Your task to perform on an android device: empty trash in google photos Image 0: 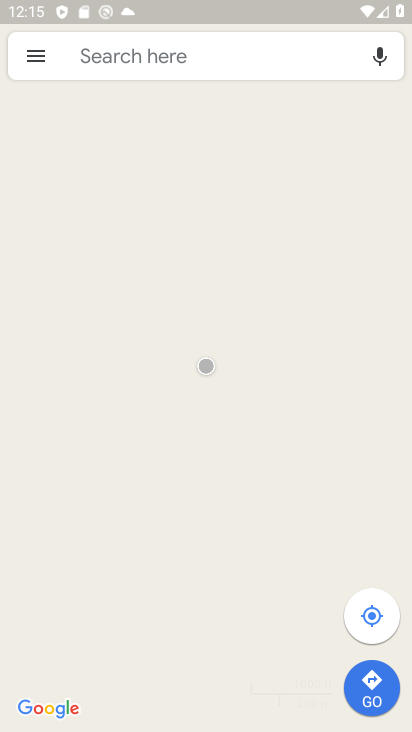
Step 0: press back button
Your task to perform on an android device: empty trash in google photos Image 1: 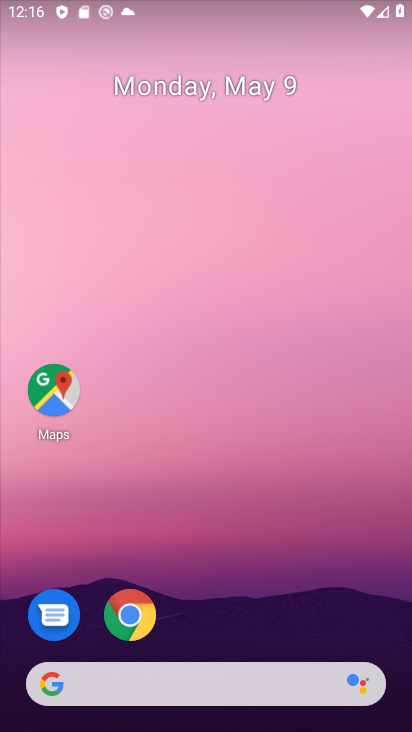
Step 1: drag from (227, 595) to (190, 70)
Your task to perform on an android device: empty trash in google photos Image 2: 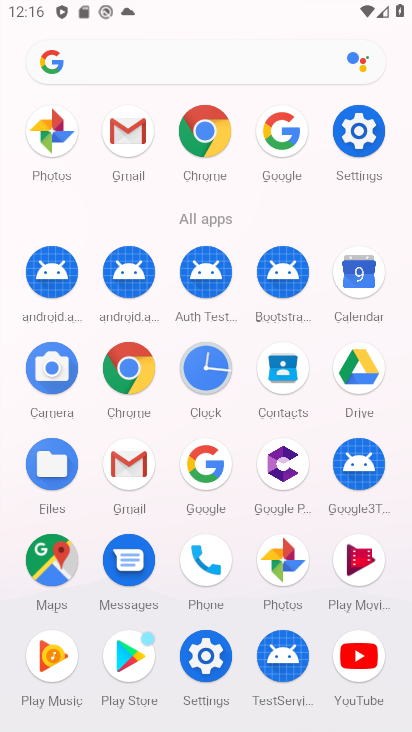
Step 2: click (53, 129)
Your task to perform on an android device: empty trash in google photos Image 3: 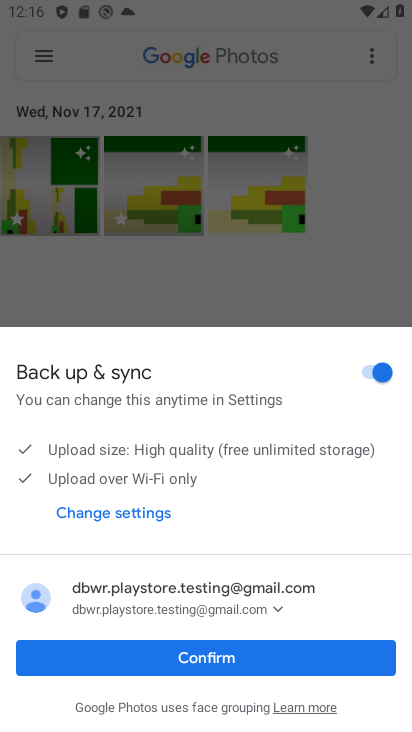
Step 3: click (201, 655)
Your task to perform on an android device: empty trash in google photos Image 4: 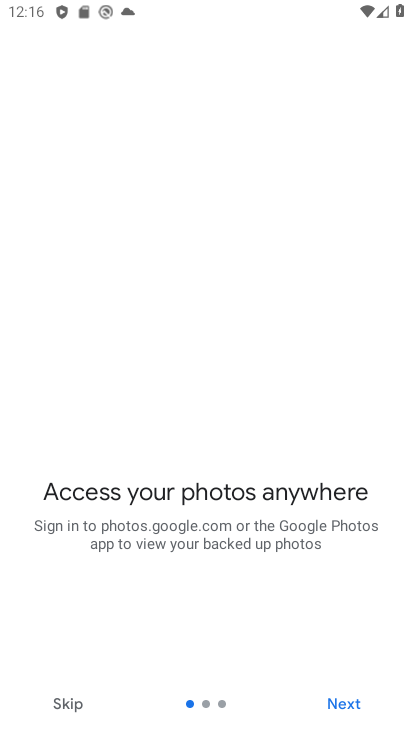
Step 4: click (48, 696)
Your task to perform on an android device: empty trash in google photos Image 5: 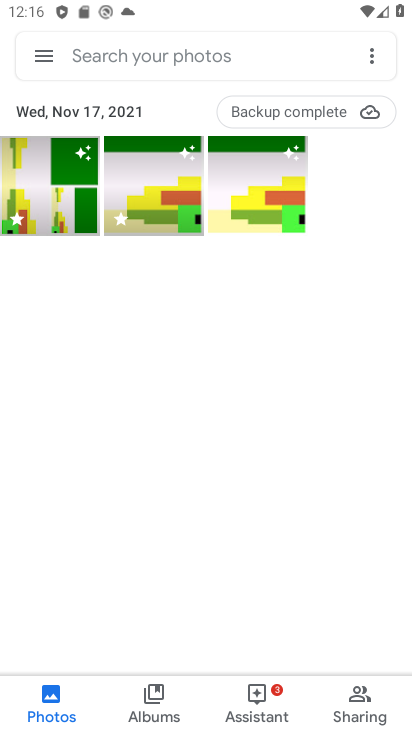
Step 5: click (46, 50)
Your task to perform on an android device: empty trash in google photos Image 6: 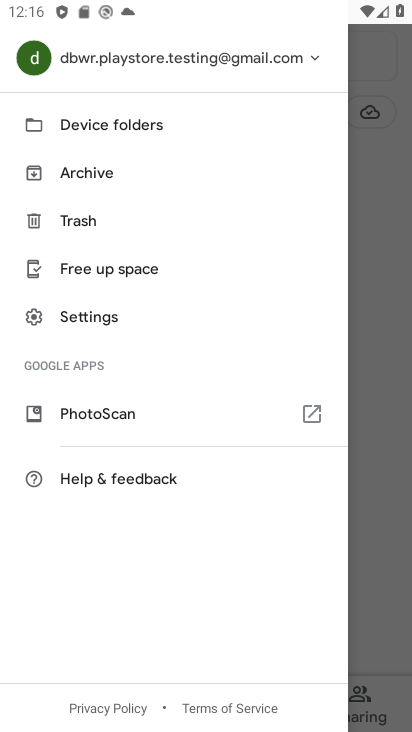
Step 6: click (84, 227)
Your task to perform on an android device: empty trash in google photos Image 7: 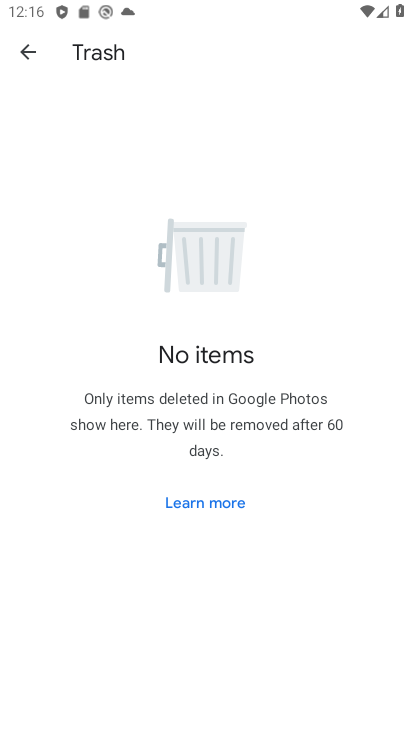
Step 7: task complete